Your task to perform on an android device: Do I have any events today? Image 0: 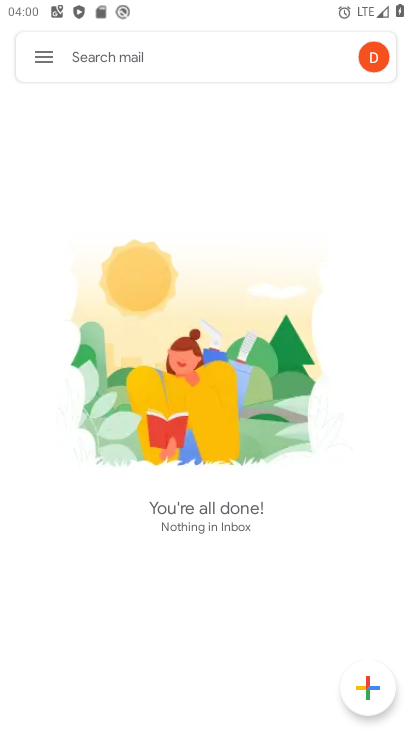
Step 0: press home button
Your task to perform on an android device: Do I have any events today? Image 1: 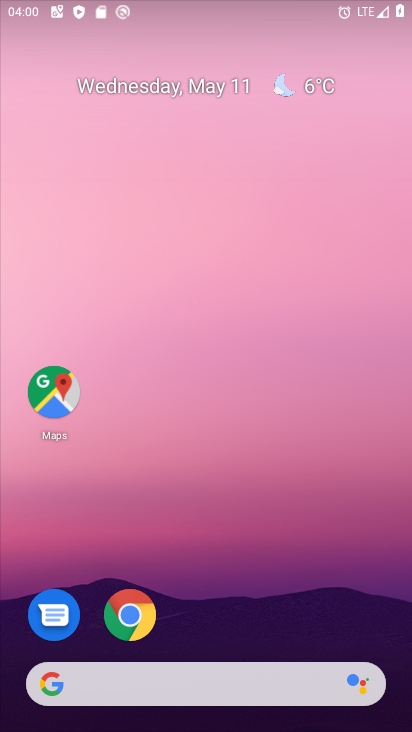
Step 1: drag from (223, 570) to (224, 108)
Your task to perform on an android device: Do I have any events today? Image 2: 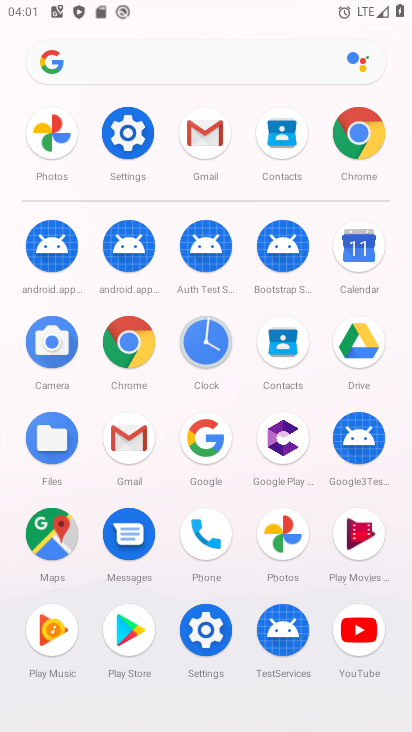
Step 2: click (347, 257)
Your task to perform on an android device: Do I have any events today? Image 3: 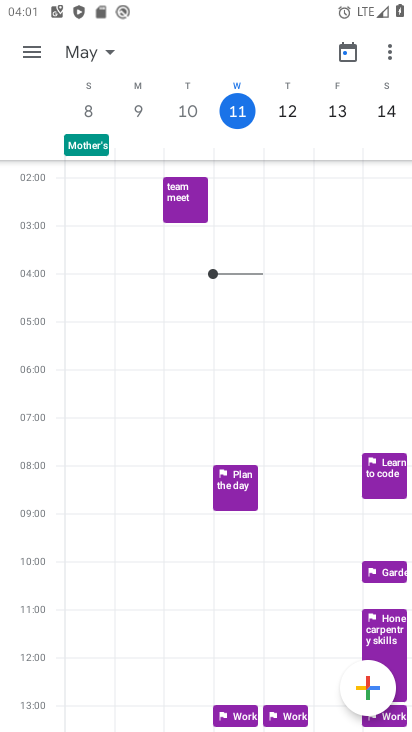
Step 3: click (34, 59)
Your task to perform on an android device: Do I have any events today? Image 4: 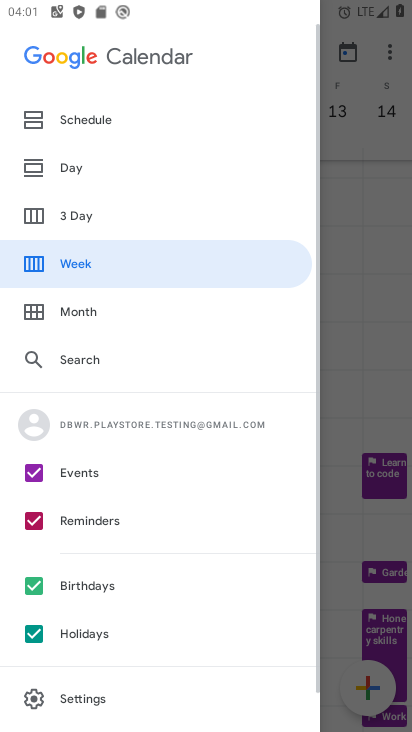
Step 4: click (101, 167)
Your task to perform on an android device: Do I have any events today? Image 5: 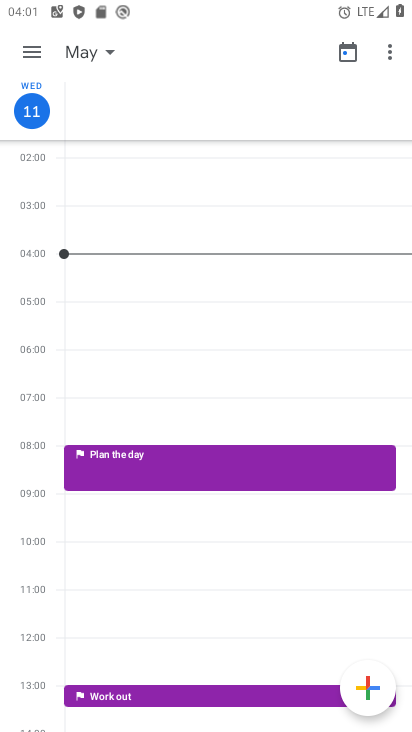
Step 5: task complete